Your task to perform on an android device: Open location settings Image 0: 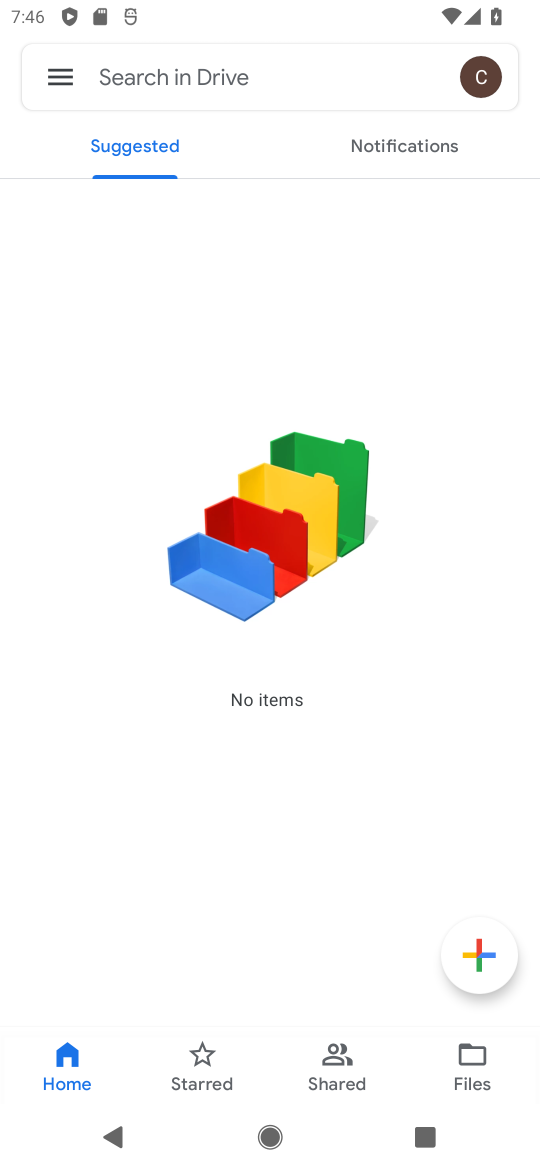
Step 0: press back button
Your task to perform on an android device: Open location settings Image 1: 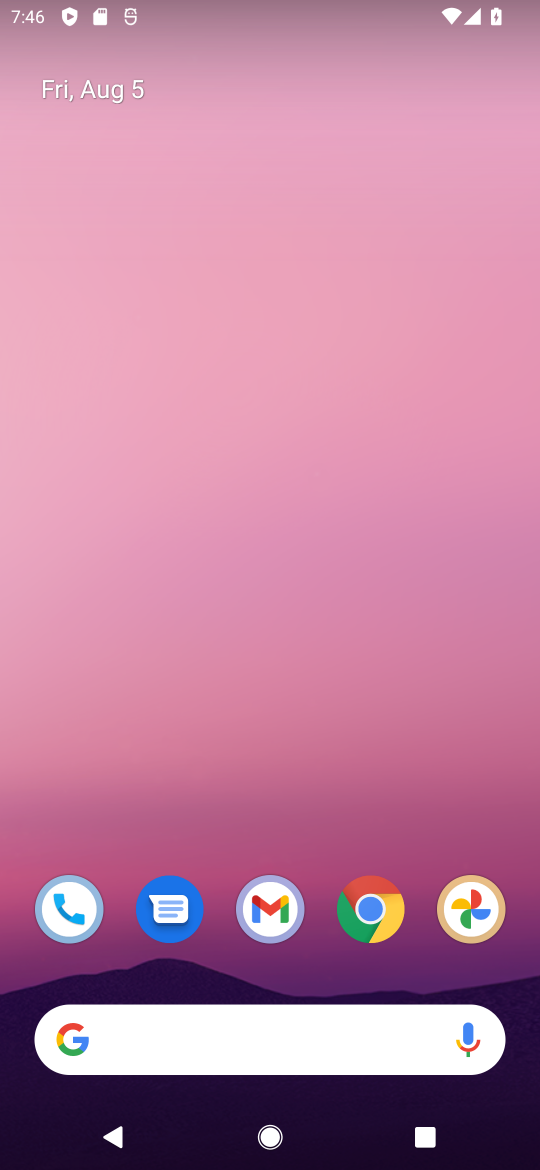
Step 1: drag from (414, 826) to (423, 1)
Your task to perform on an android device: Open location settings Image 2: 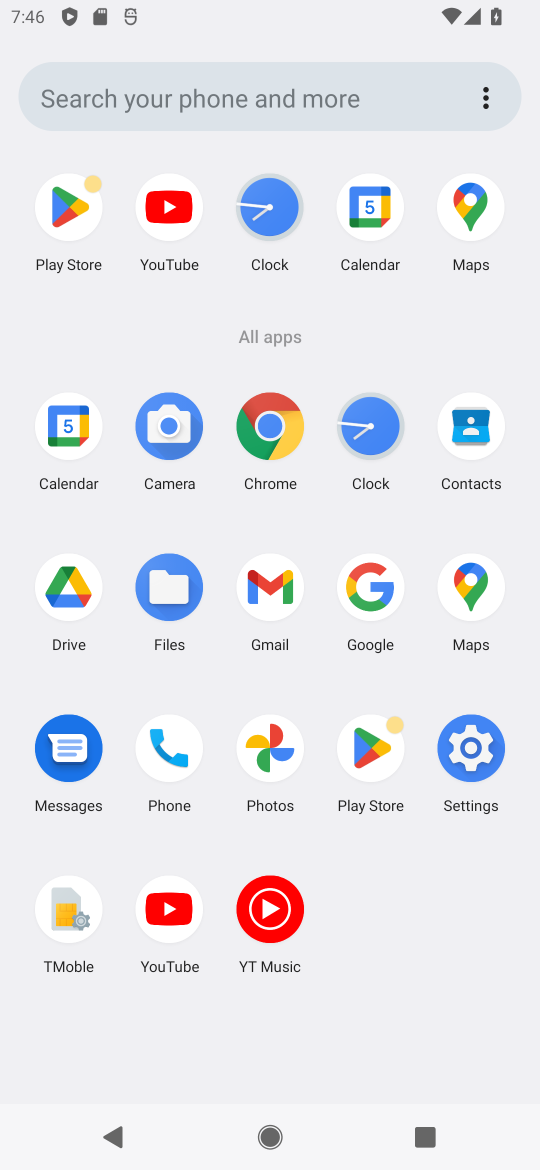
Step 2: click (483, 722)
Your task to perform on an android device: Open location settings Image 3: 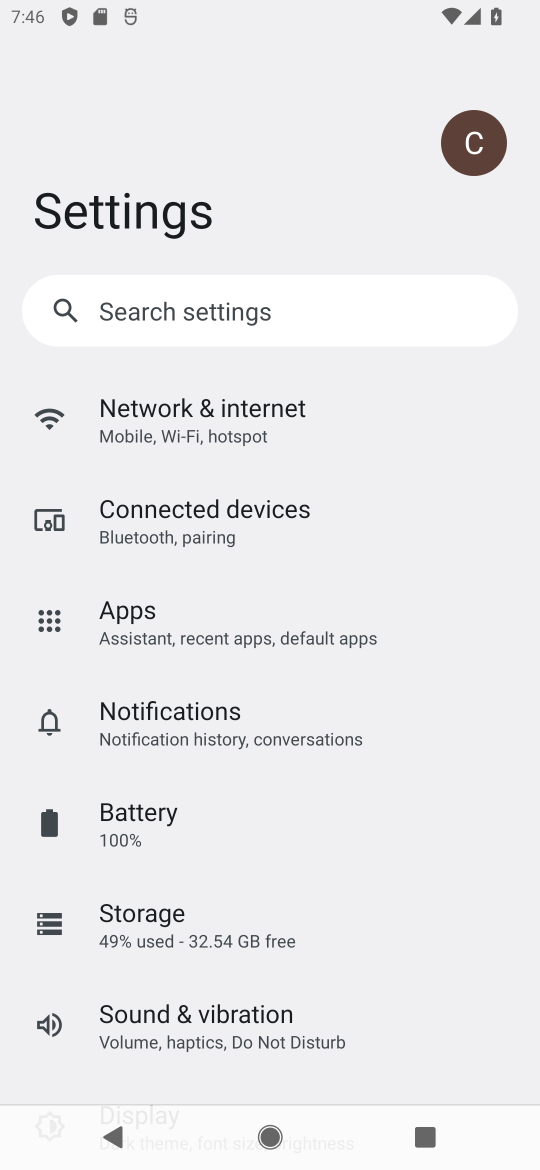
Step 3: drag from (294, 967) to (249, 402)
Your task to perform on an android device: Open location settings Image 4: 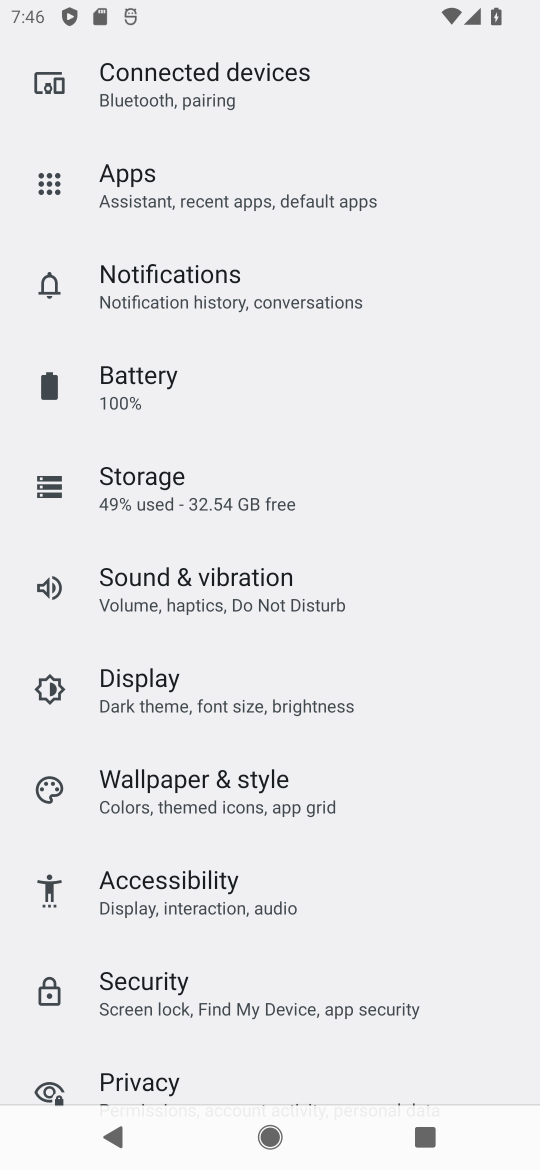
Step 4: drag from (358, 1065) to (277, 139)
Your task to perform on an android device: Open location settings Image 5: 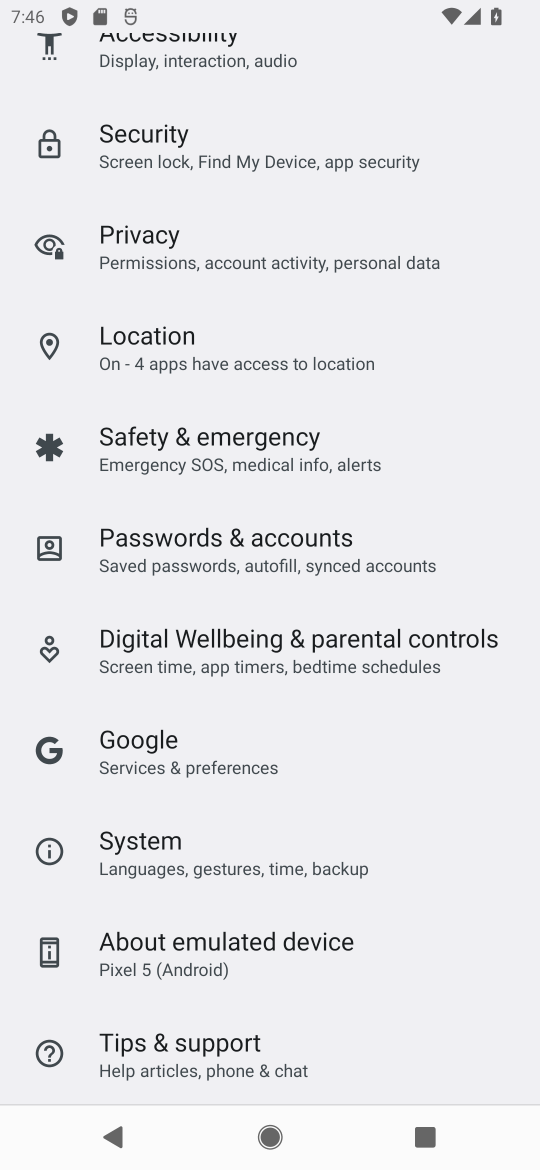
Step 5: click (325, 375)
Your task to perform on an android device: Open location settings Image 6: 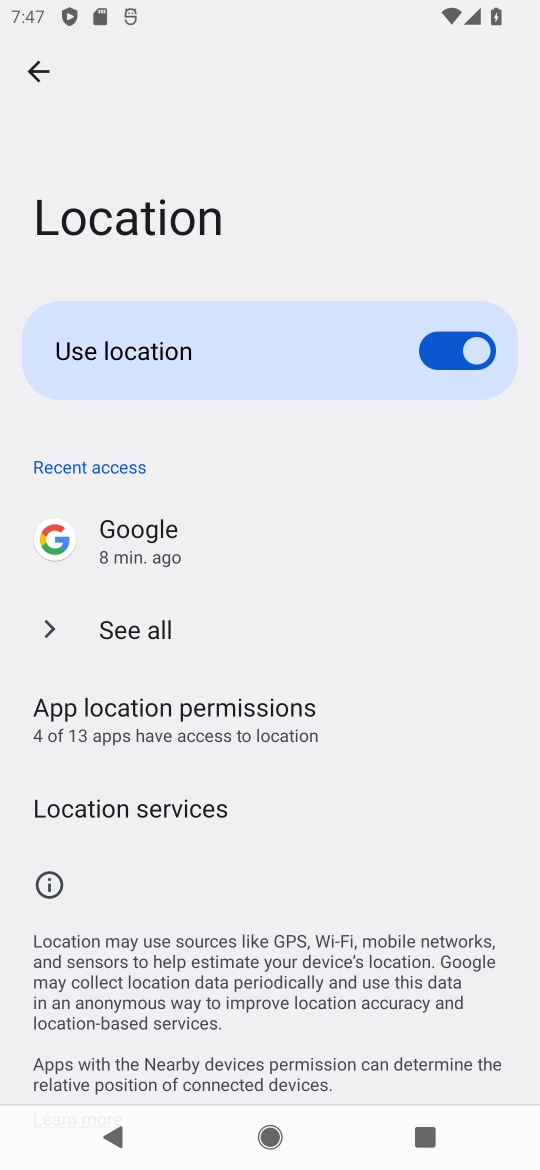
Step 6: task complete